Your task to perform on an android device: change the clock display to analog Image 0: 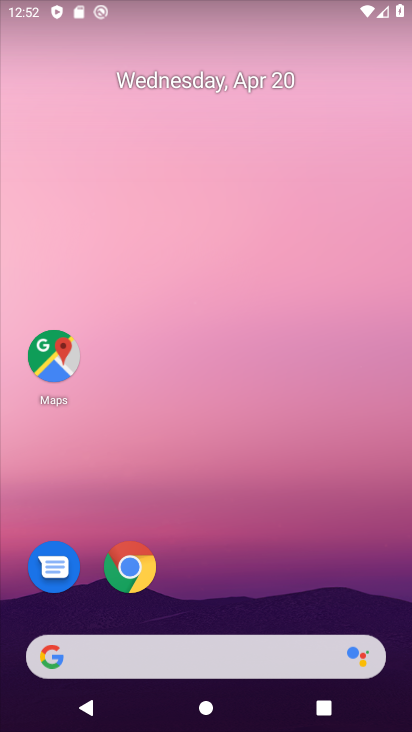
Step 0: drag from (292, 412) to (296, 123)
Your task to perform on an android device: change the clock display to analog Image 1: 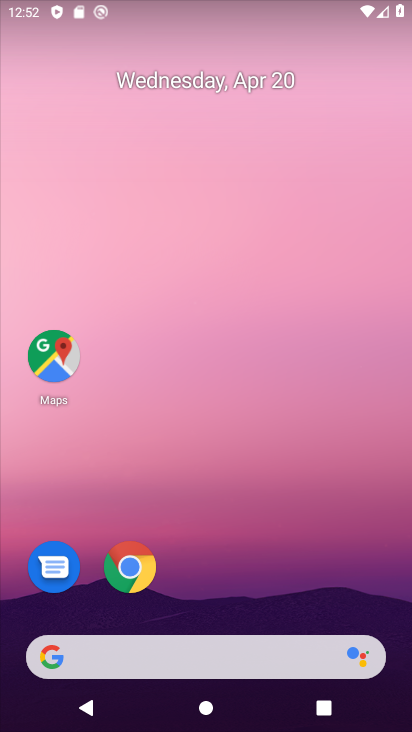
Step 1: drag from (333, 480) to (334, 98)
Your task to perform on an android device: change the clock display to analog Image 2: 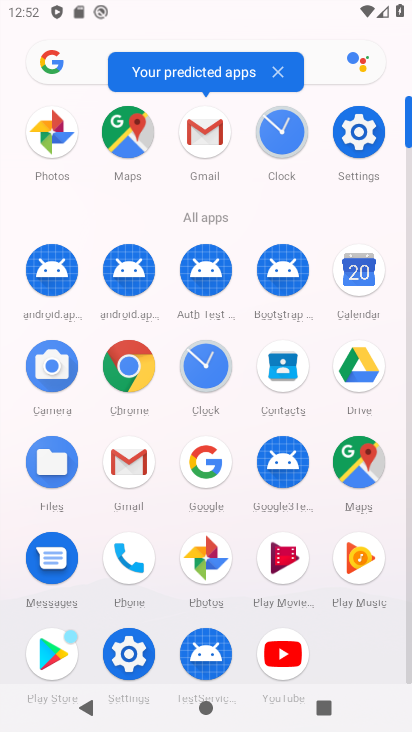
Step 2: click (270, 129)
Your task to perform on an android device: change the clock display to analog Image 3: 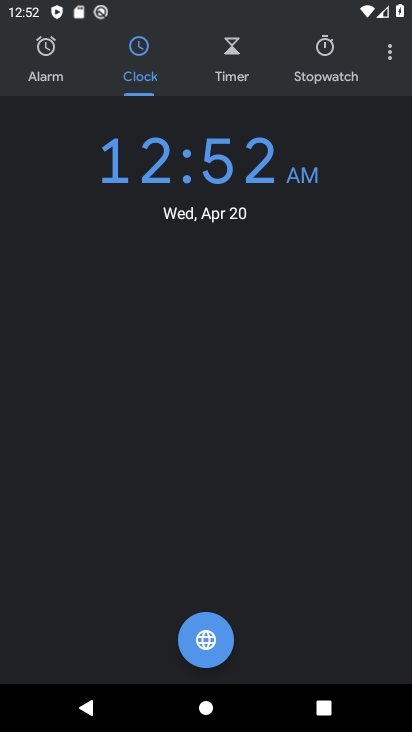
Step 3: click (391, 58)
Your task to perform on an android device: change the clock display to analog Image 4: 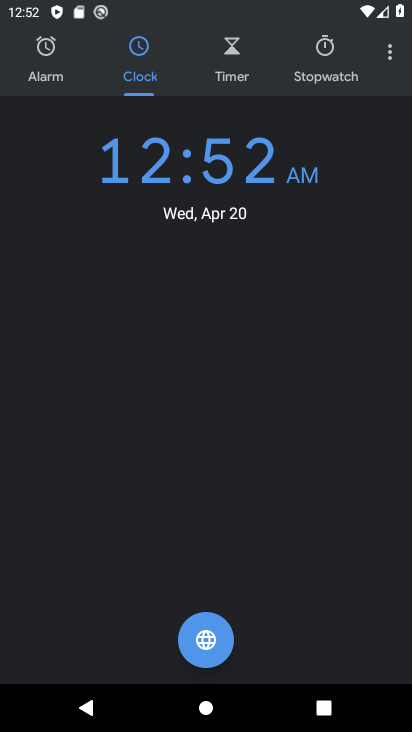
Step 4: click (391, 58)
Your task to perform on an android device: change the clock display to analog Image 5: 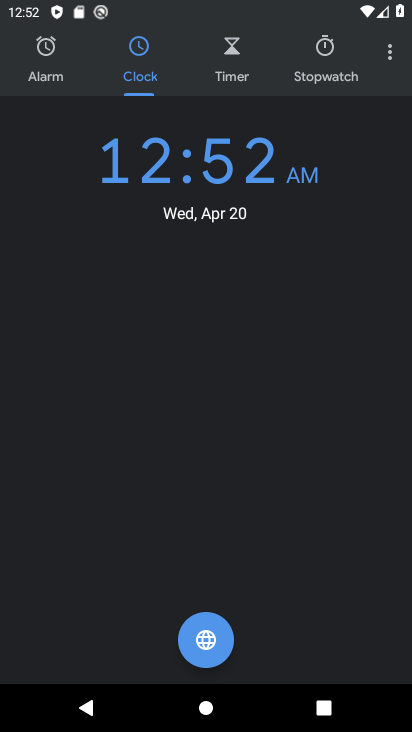
Step 5: click (389, 54)
Your task to perform on an android device: change the clock display to analog Image 6: 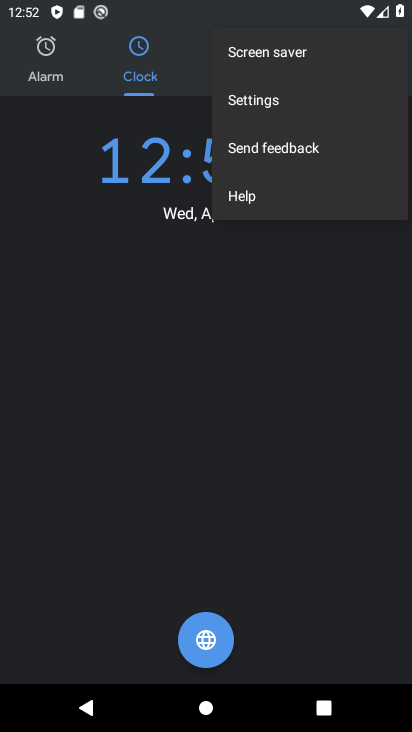
Step 6: click (283, 98)
Your task to perform on an android device: change the clock display to analog Image 7: 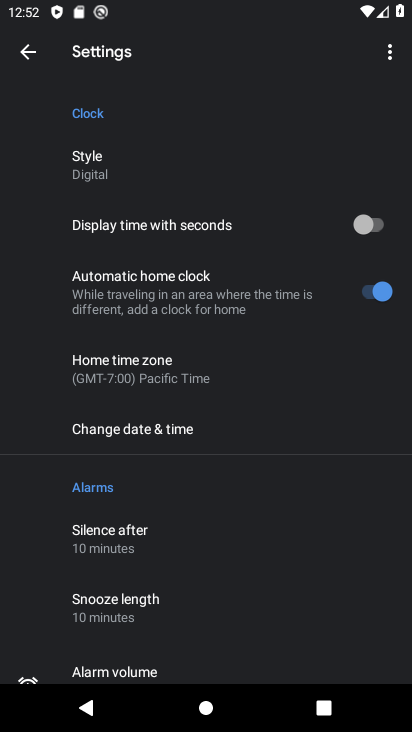
Step 7: click (105, 167)
Your task to perform on an android device: change the clock display to analog Image 8: 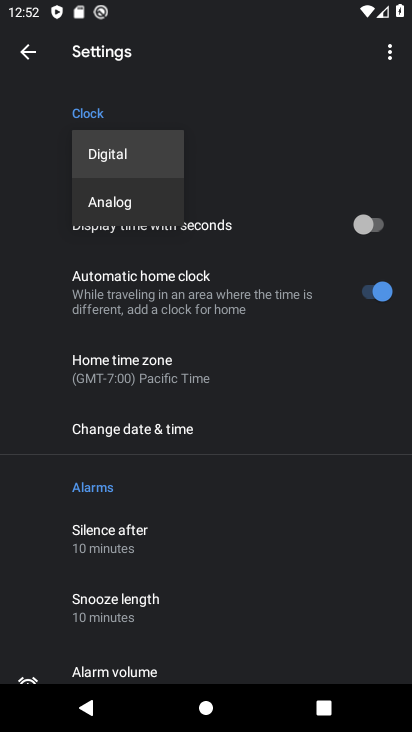
Step 8: click (146, 200)
Your task to perform on an android device: change the clock display to analog Image 9: 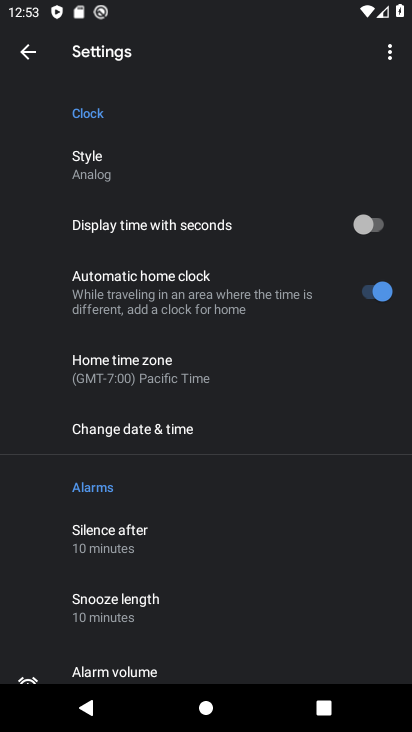
Step 9: task complete